Your task to perform on an android device: change timer sound Image 0: 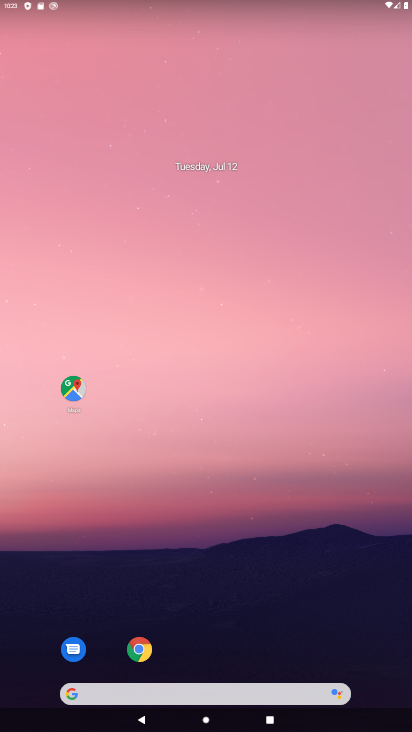
Step 0: drag from (257, 592) to (316, 0)
Your task to perform on an android device: change timer sound Image 1: 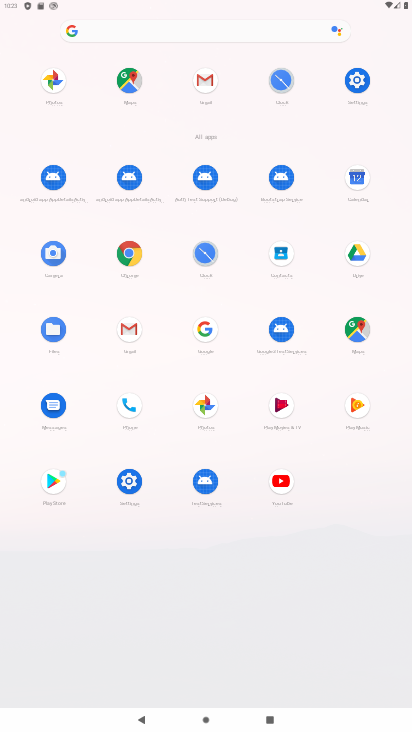
Step 1: click (274, 81)
Your task to perform on an android device: change timer sound Image 2: 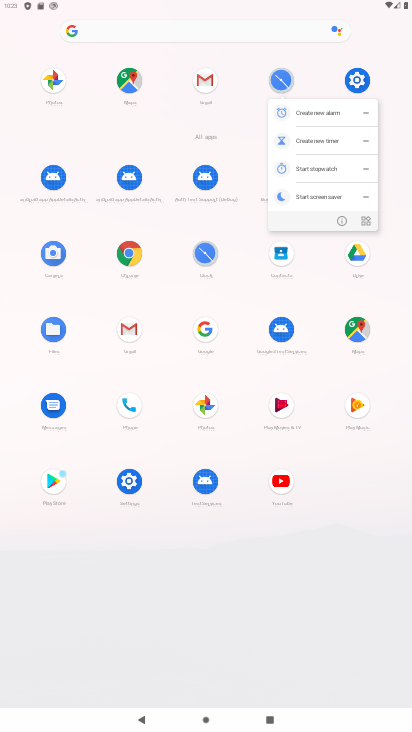
Step 2: click (274, 81)
Your task to perform on an android device: change timer sound Image 3: 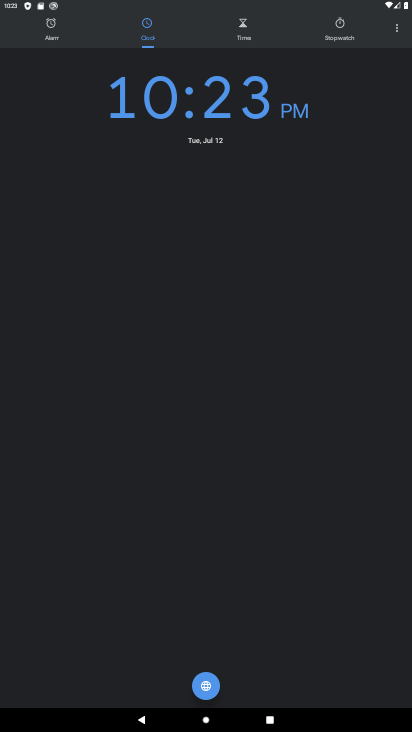
Step 3: click (397, 35)
Your task to perform on an android device: change timer sound Image 4: 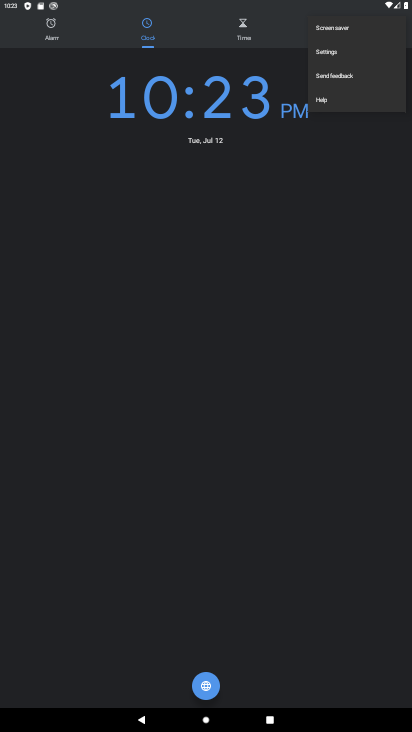
Step 4: click (328, 54)
Your task to perform on an android device: change timer sound Image 5: 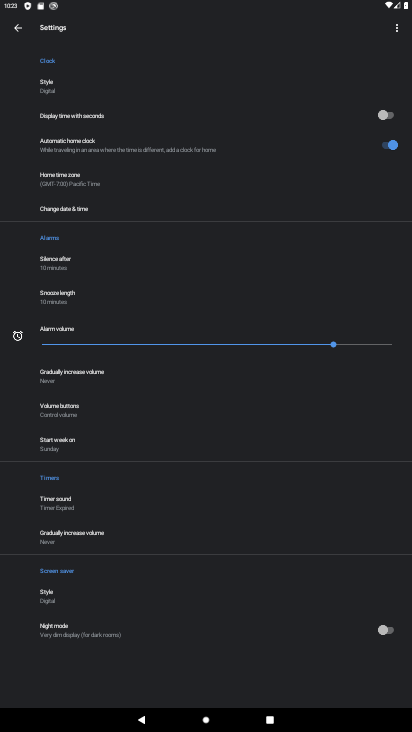
Step 5: click (61, 503)
Your task to perform on an android device: change timer sound Image 6: 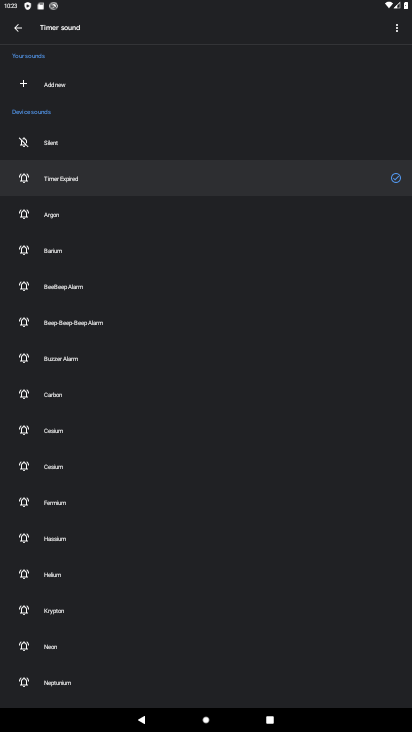
Step 6: click (50, 255)
Your task to perform on an android device: change timer sound Image 7: 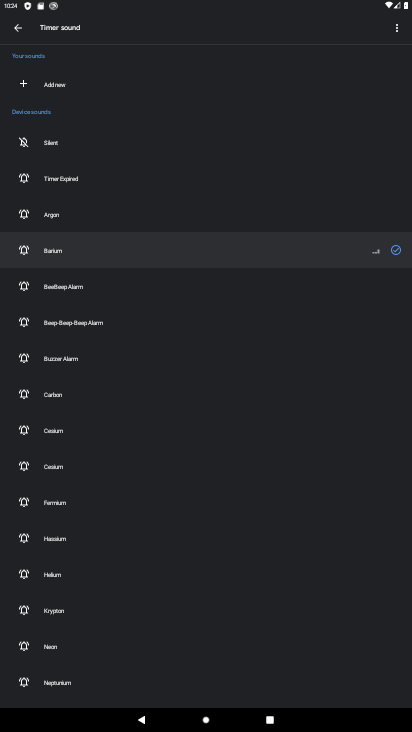
Step 7: task complete